Your task to perform on an android device: see creations saved in the google photos Image 0: 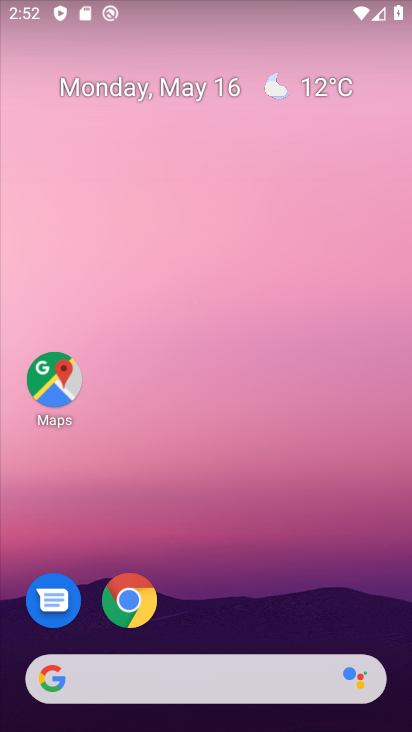
Step 0: drag from (195, 645) to (86, 12)
Your task to perform on an android device: see creations saved in the google photos Image 1: 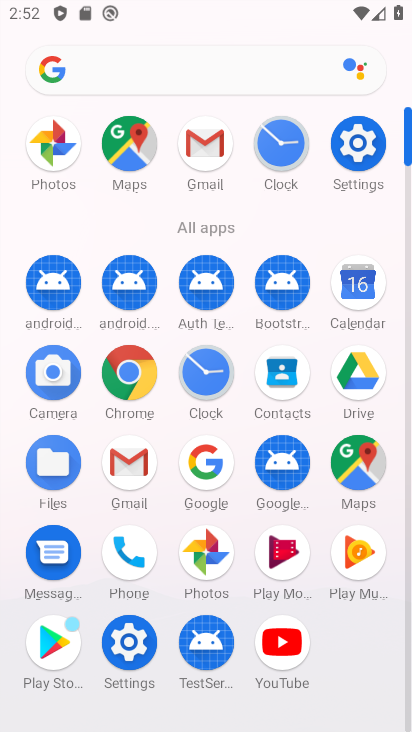
Step 1: click (211, 542)
Your task to perform on an android device: see creations saved in the google photos Image 2: 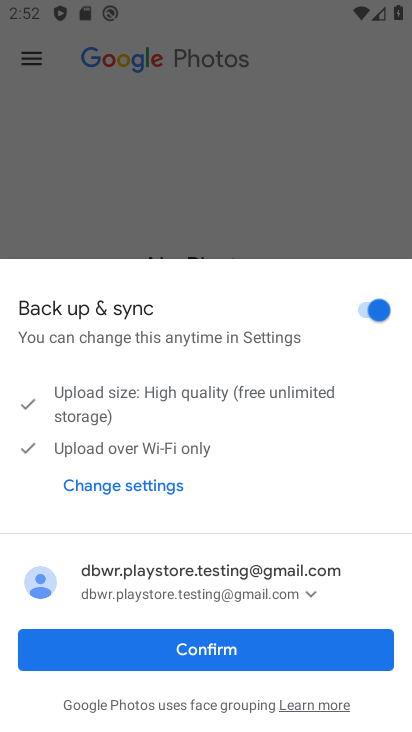
Step 2: click (220, 658)
Your task to perform on an android device: see creations saved in the google photos Image 3: 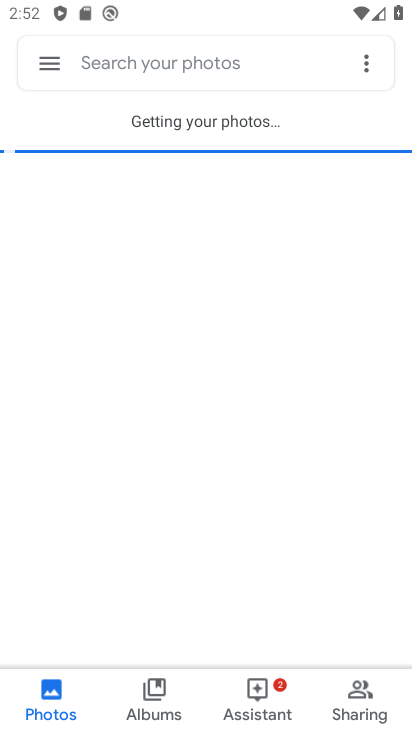
Step 3: click (182, 75)
Your task to perform on an android device: see creations saved in the google photos Image 4: 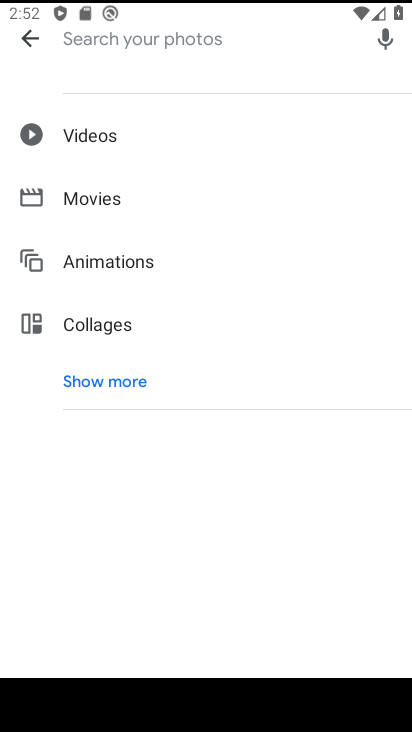
Step 4: click (98, 368)
Your task to perform on an android device: see creations saved in the google photos Image 5: 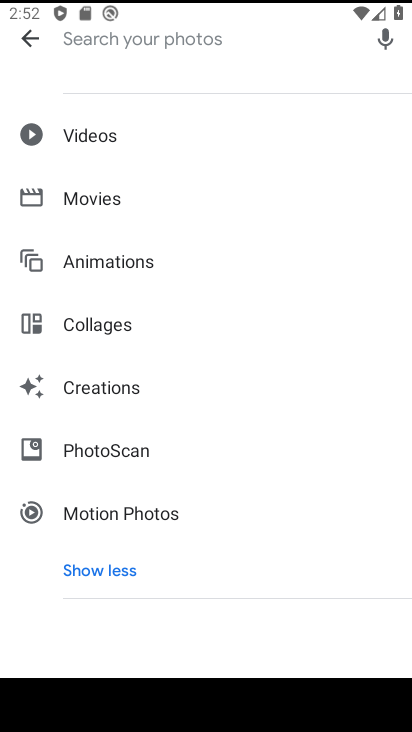
Step 5: click (117, 393)
Your task to perform on an android device: see creations saved in the google photos Image 6: 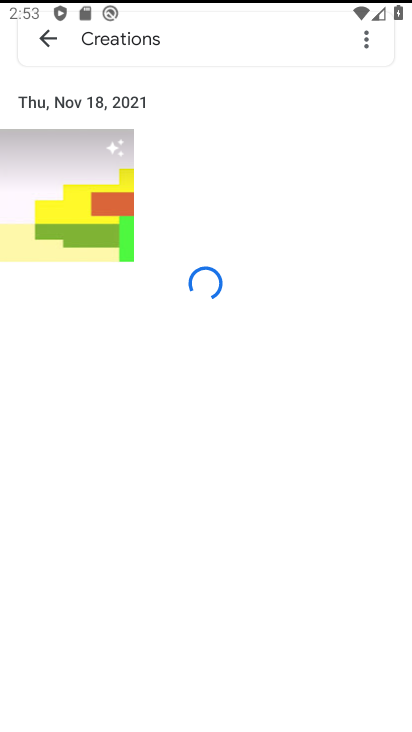
Step 6: task complete